Your task to perform on an android device: snooze an email in the gmail app Image 0: 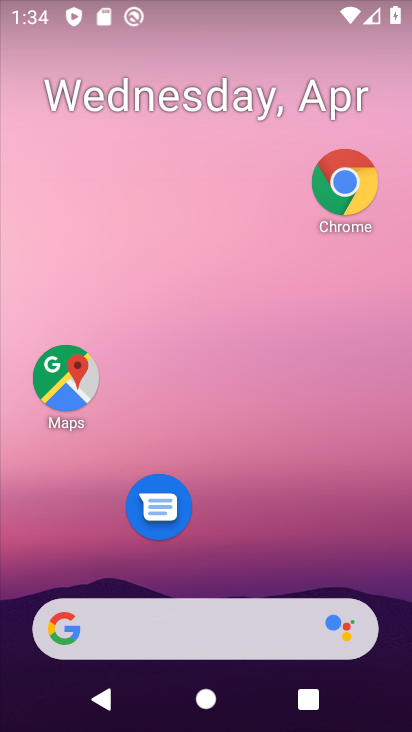
Step 0: drag from (261, 702) to (239, 13)
Your task to perform on an android device: snooze an email in the gmail app Image 1: 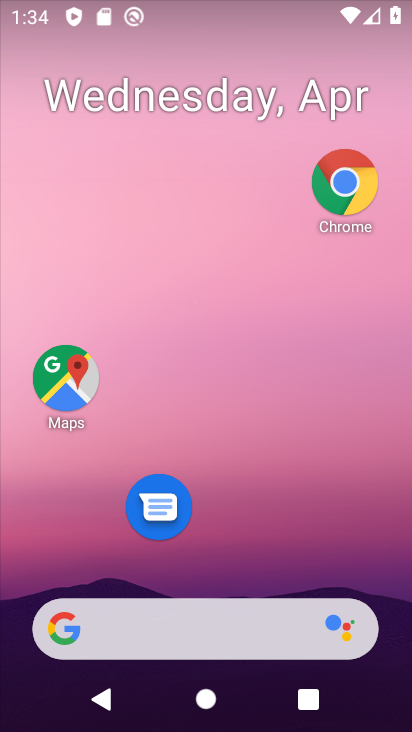
Step 1: drag from (237, 477) to (195, 90)
Your task to perform on an android device: snooze an email in the gmail app Image 2: 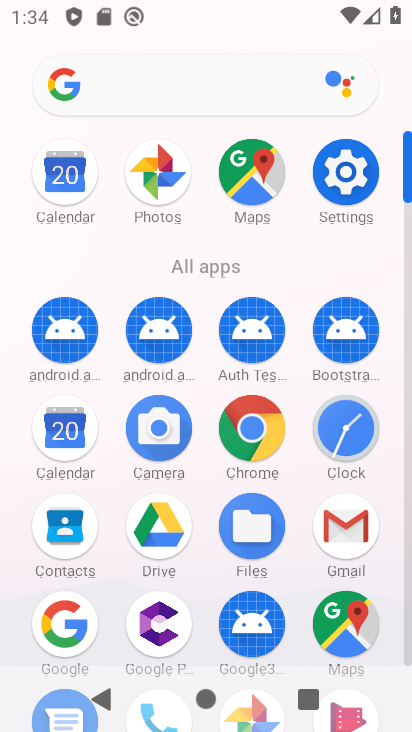
Step 2: click (333, 518)
Your task to perform on an android device: snooze an email in the gmail app Image 3: 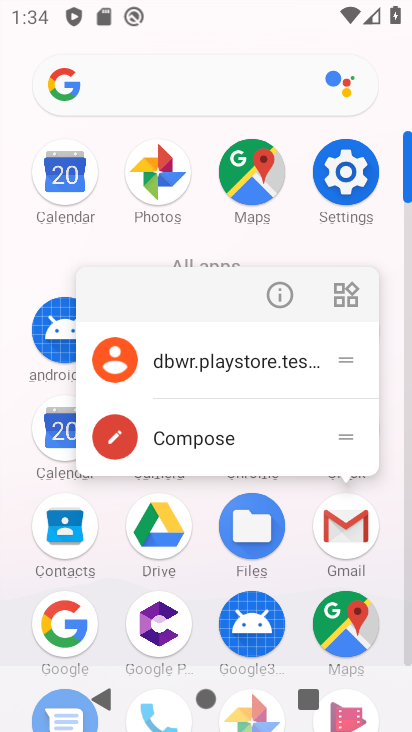
Step 3: click (333, 537)
Your task to perform on an android device: snooze an email in the gmail app Image 4: 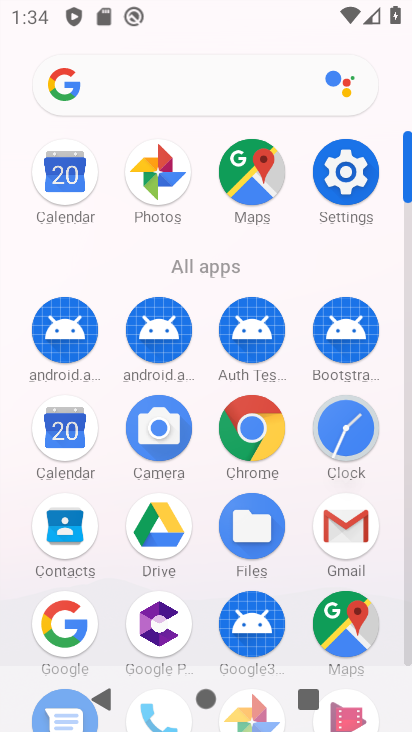
Step 4: click (333, 537)
Your task to perform on an android device: snooze an email in the gmail app Image 5: 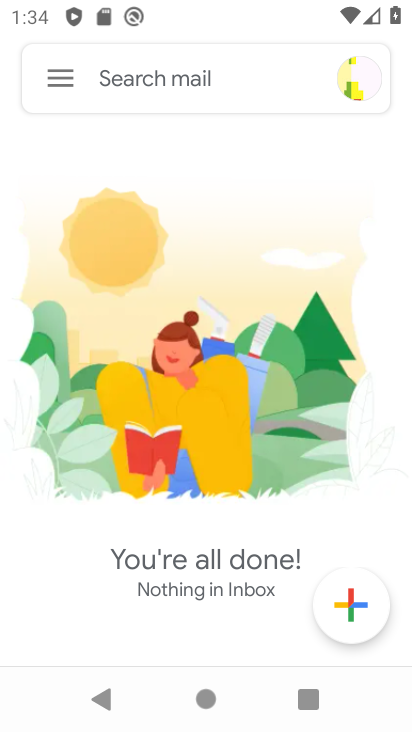
Step 5: task complete